Your task to perform on an android device: delete the emails in spam in the gmail app Image 0: 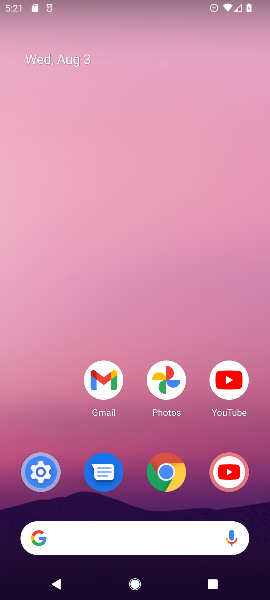
Step 0: drag from (192, 487) to (65, 83)
Your task to perform on an android device: delete the emails in spam in the gmail app Image 1: 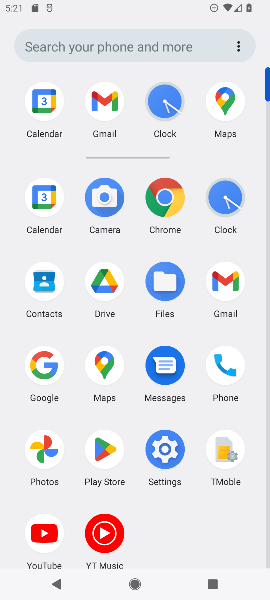
Step 1: click (229, 285)
Your task to perform on an android device: delete the emails in spam in the gmail app Image 2: 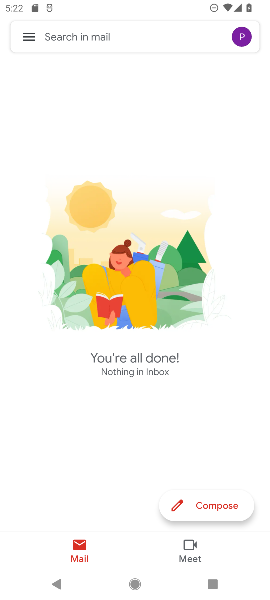
Step 2: task complete